Your task to perform on an android device: Turn off the flashlight Image 0: 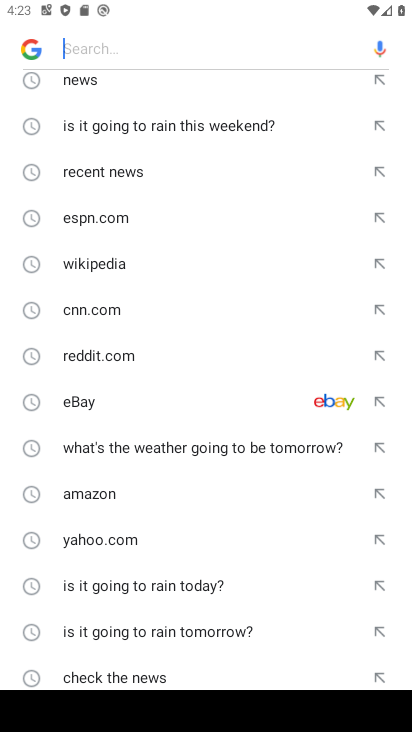
Step 0: press home button
Your task to perform on an android device: Turn off the flashlight Image 1: 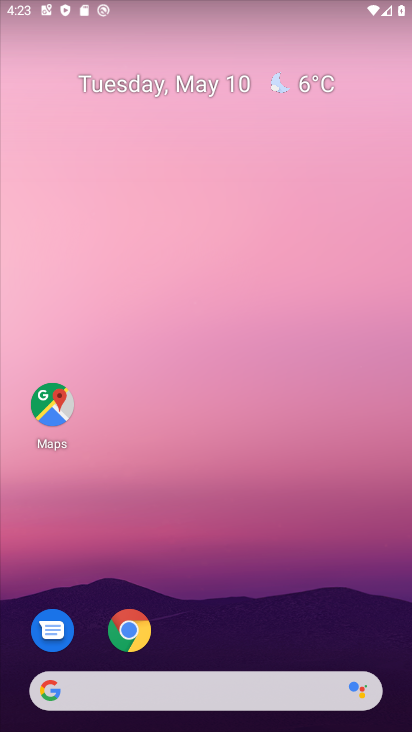
Step 1: drag from (278, 29) to (239, 491)
Your task to perform on an android device: Turn off the flashlight Image 2: 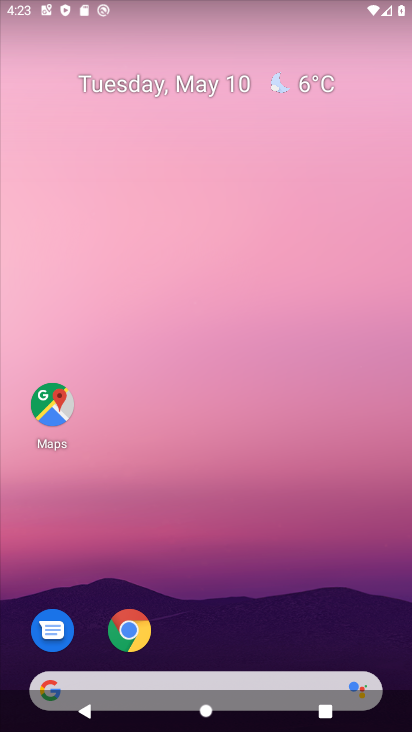
Step 2: drag from (287, 12) to (268, 487)
Your task to perform on an android device: Turn off the flashlight Image 3: 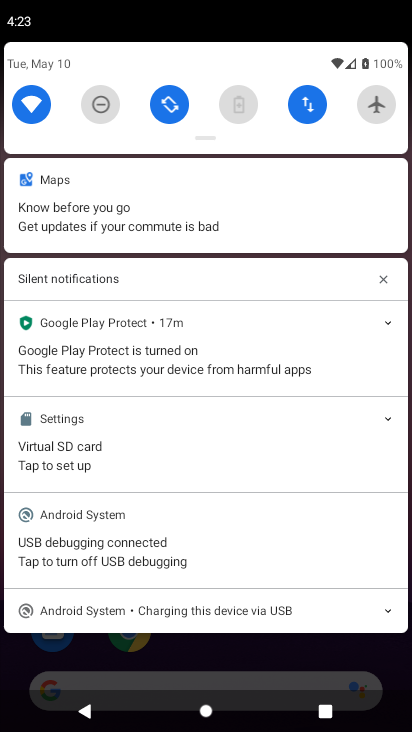
Step 3: drag from (279, 134) to (253, 529)
Your task to perform on an android device: Turn off the flashlight Image 4: 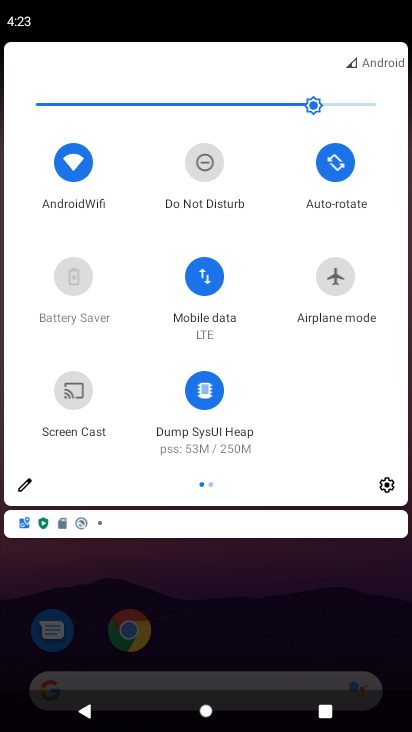
Step 4: drag from (390, 323) to (87, 323)
Your task to perform on an android device: Turn off the flashlight Image 5: 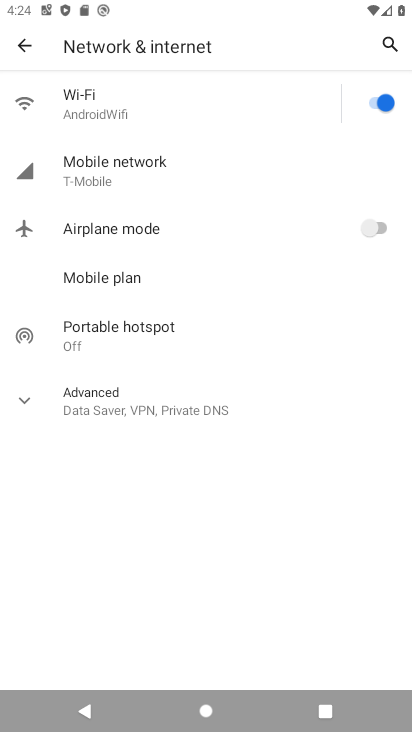
Step 5: click (24, 41)
Your task to perform on an android device: Turn off the flashlight Image 6: 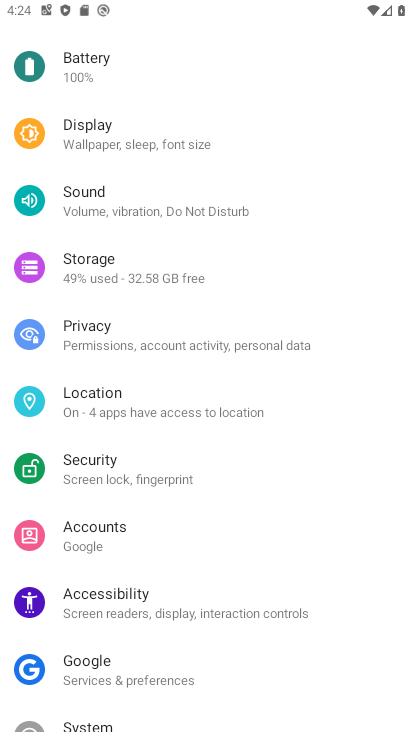
Step 6: click (138, 129)
Your task to perform on an android device: Turn off the flashlight Image 7: 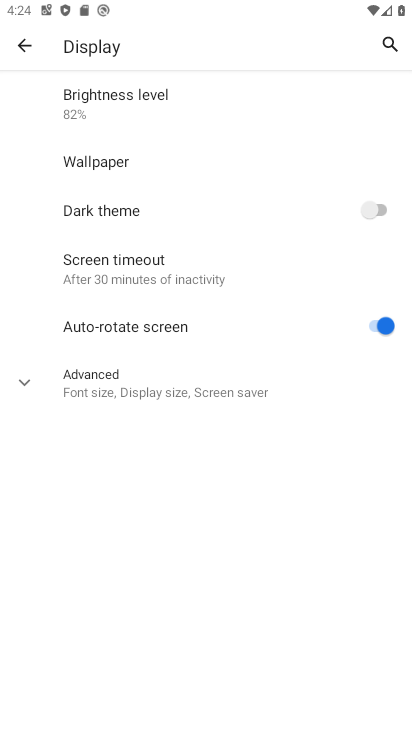
Step 7: task complete